Your task to perform on an android device: set the stopwatch Image 0: 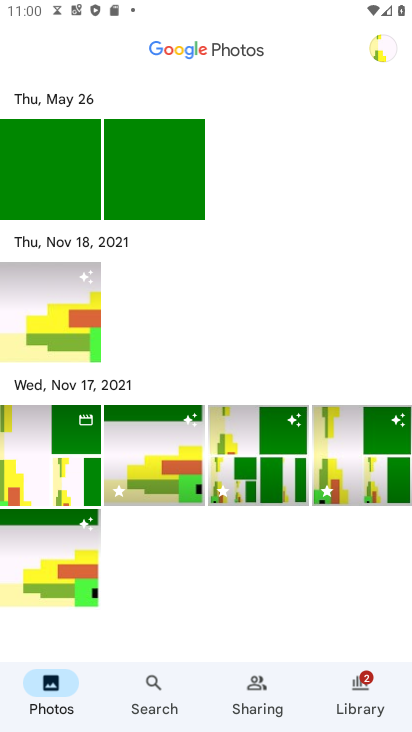
Step 0: press home button
Your task to perform on an android device: set the stopwatch Image 1: 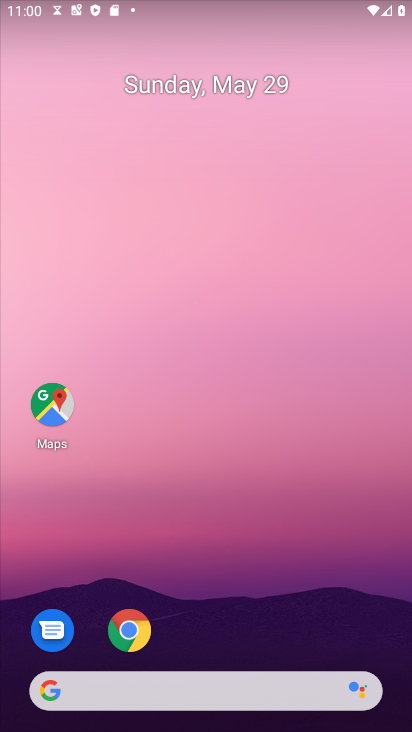
Step 1: drag from (200, 609) to (275, 5)
Your task to perform on an android device: set the stopwatch Image 2: 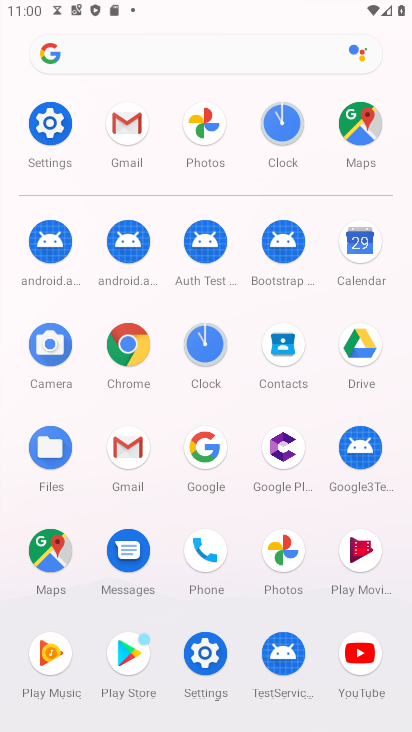
Step 2: click (217, 341)
Your task to perform on an android device: set the stopwatch Image 3: 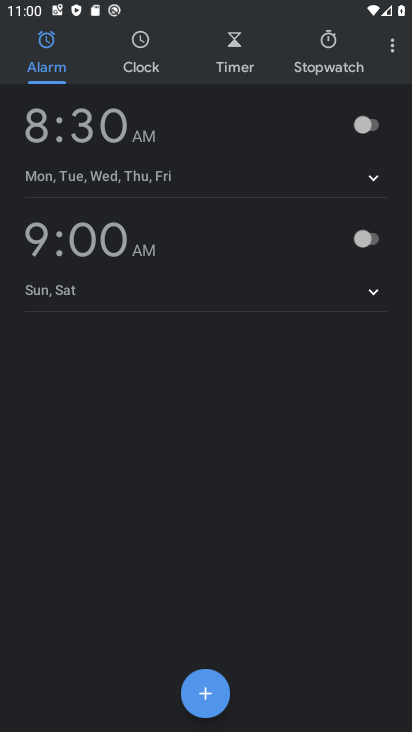
Step 3: task complete